Your task to perform on an android device: turn pop-ups off in chrome Image 0: 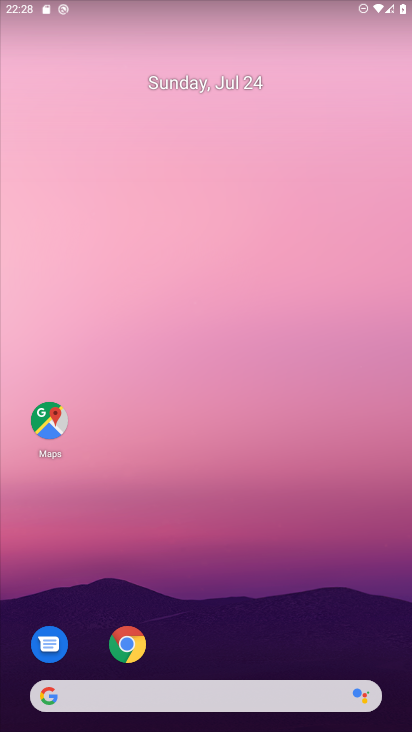
Step 0: click (124, 644)
Your task to perform on an android device: turn pop-ups off in chrome Image 1: 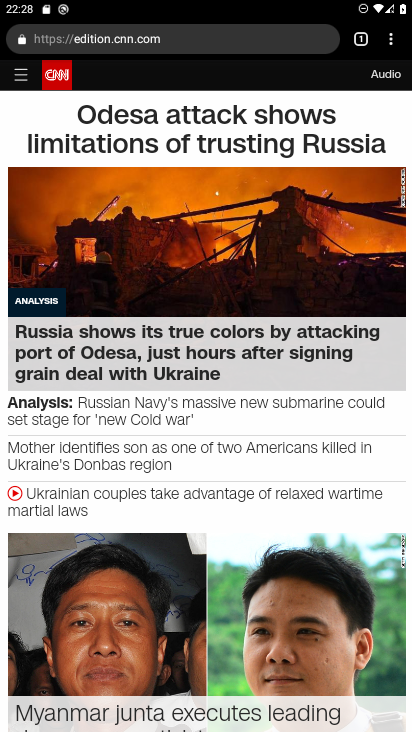
Step 1: click (392, 44)
Your task to perform on an android device: turn pop-ups off in chrome Image 2: 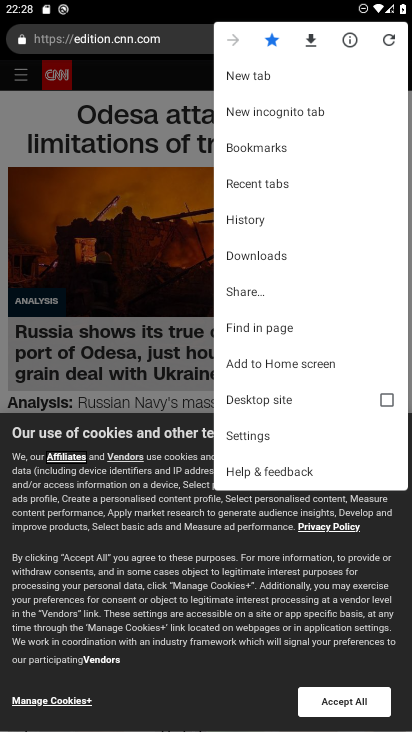
Step 2: click (253, 436)
Your task to perform on an android device: turn pop-ups off in chrome Image 3: 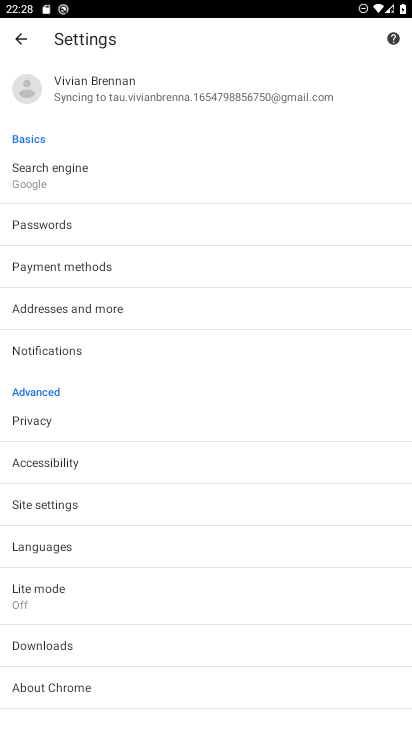
Step 3: click (34, 505)
Your task to perform on an android device: turn pop-ups off in chrome Image 4: 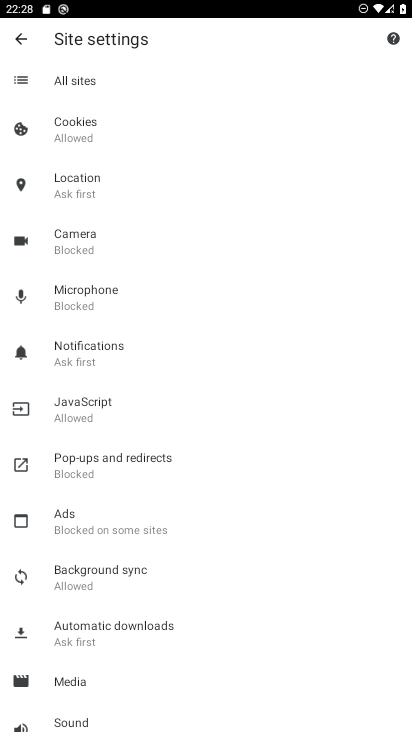
Step 4: click (77, 460)
Your task to perform on an android device: turn pop-ups off in chrome Image 5: 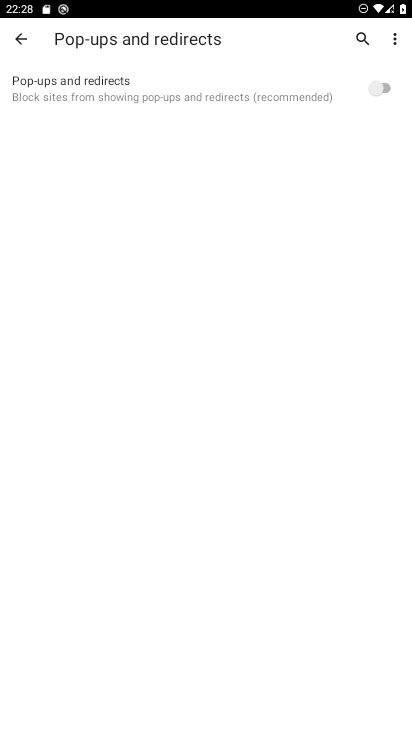
Step 5: task complete